Your task to perform on an android device: turn smart compose on in the gmail app Image 0: 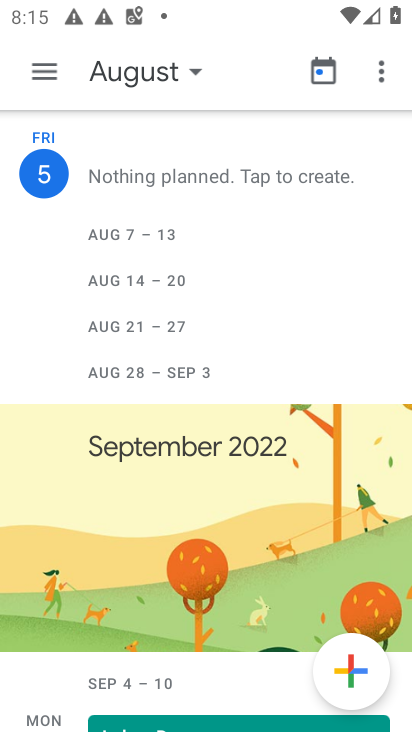
Step 0: press home button
Your task to perform on an android device: turn smart compose on in the gmail app Image 1: 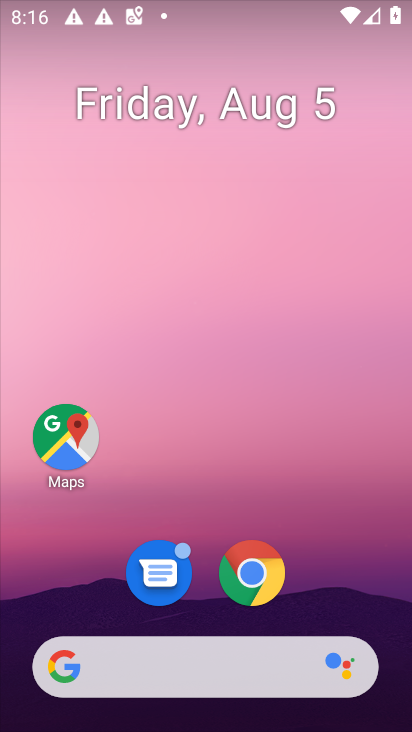
Step 1: drag from (212, 683) to (253, 225)
Your task to perform on an android device: turn smart compose on in the gmail app Image 2: 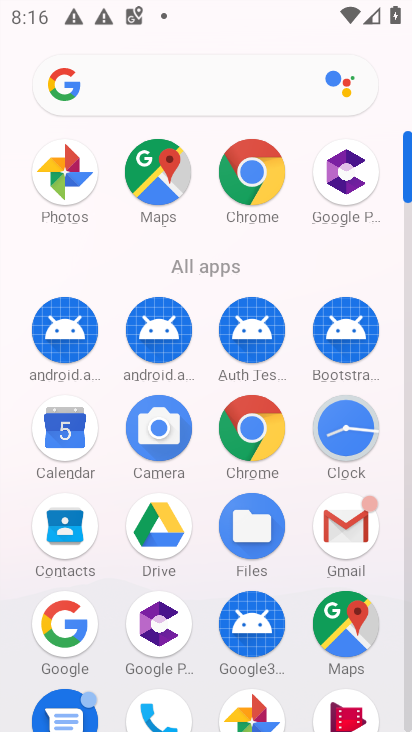
Step 2: click (343, 523)
Your task to perform on an android device: turn smart compose on in the gmail app Image 3: 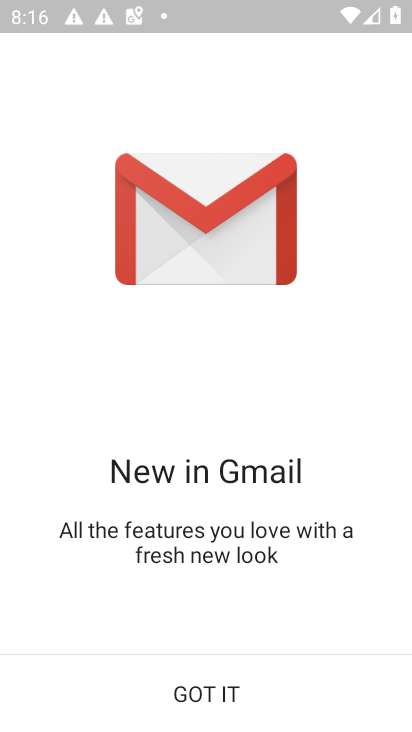
Step 3: click (213, 681)
Your task to perform on an android device: turn smart compose on in the gmail app Image 4: 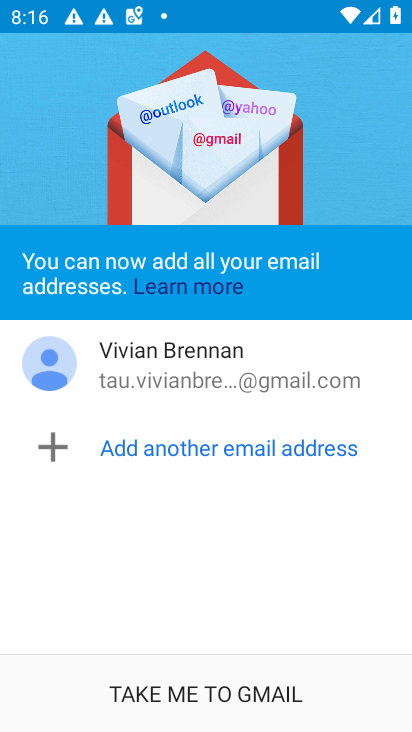
Step 4: click (195, 691)
Your task to perform on an android device: turn smart compose on in the gmail app Image 5: 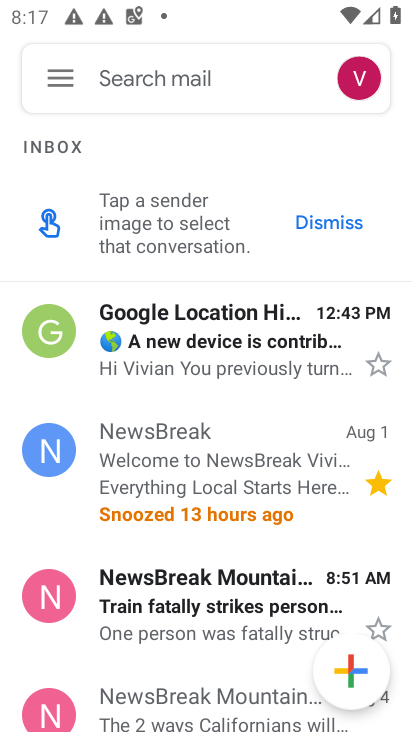
Step 5: click (54, 81)
Your task to perform on an android device: turn smart compose on in the gmail app Image 6: 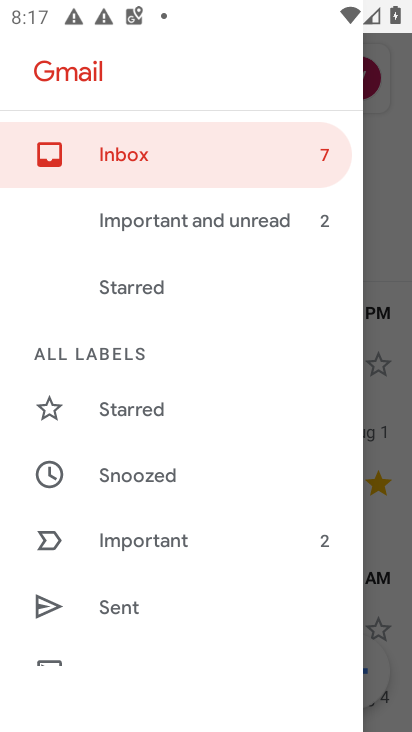
Step 6: drag from (122, 568) to (190, 425)
Your task to perform on an android device: turn smart compose on in the gmail app Image 7: 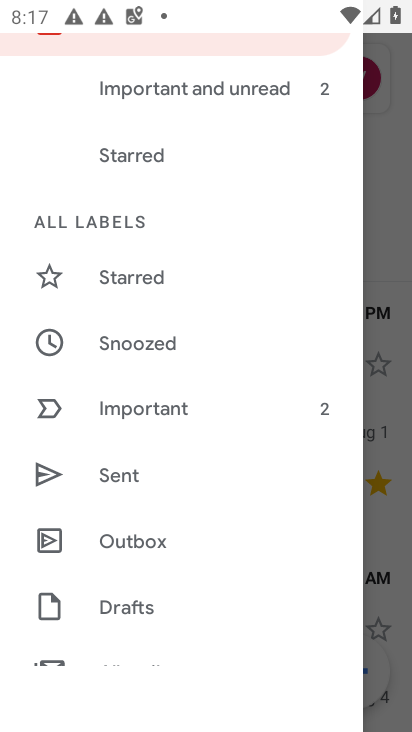
Step 7: drag from (133, 627) to (213, 491)
Your task to perform on an android device: turn smart compose on in the gmail app Image 8: 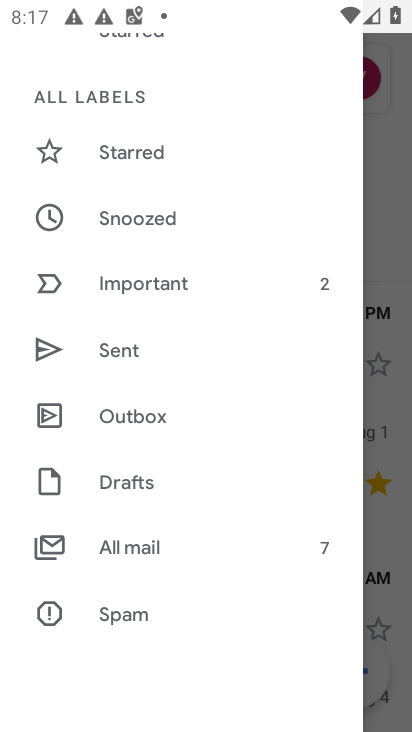
Step 8: drag from (157, 591) to (229, 459)
Your task to perform on an android device: turn smart compose on in the gmail app Image 9: 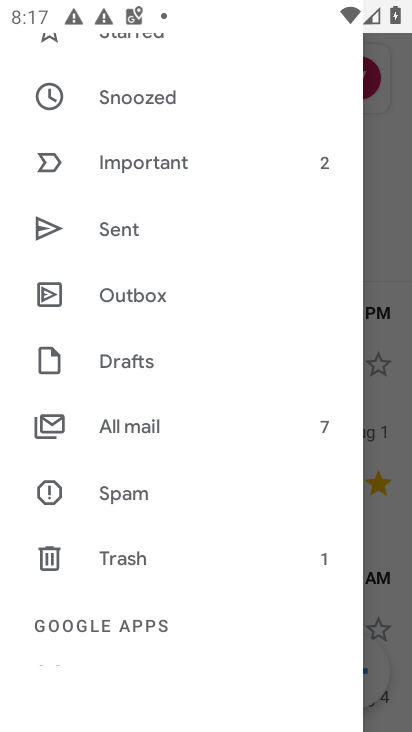
Step 9: drag from (150, 603) to (229, 468)
Your task to perform on an android device: turn smart compose on in the gmail app Image 10: 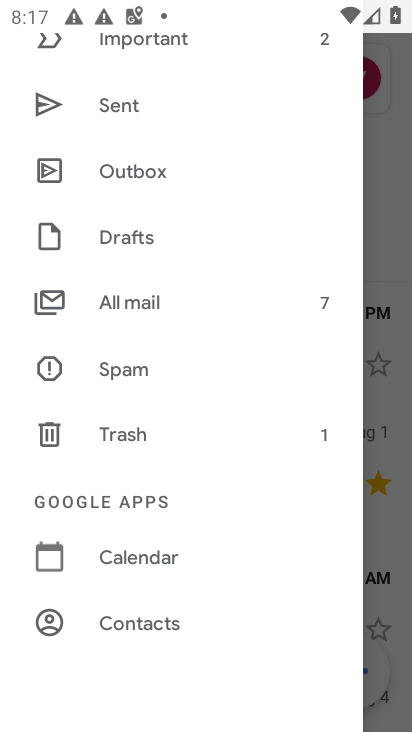
Step 10: drag from (160, 604) to (200, 421)
Your task to perform on an android device: turn smart compose on in the gmail app Image 11: 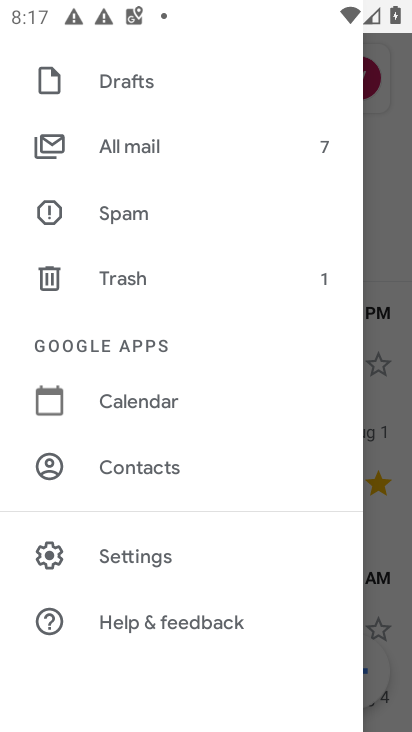
Step 11: click (147, 554)
Your task to perform on an android device: turn smart compose on in the gmail app Image 12: 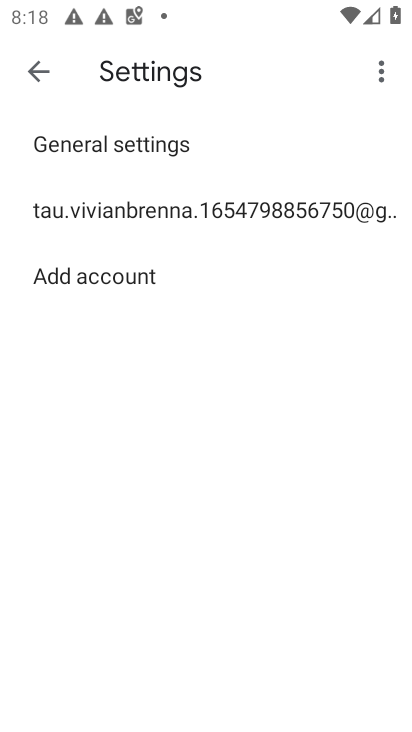
Step 12: click (122, 210)
Your task to perform on an android device: turn smart compose on in the gmail app Image 13: 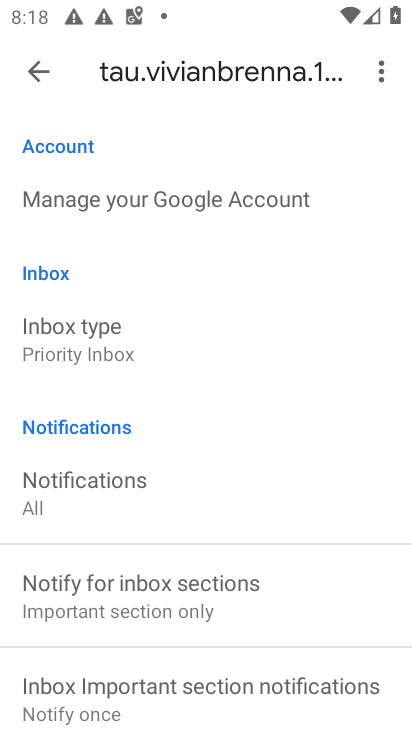
Step 13: task complete